Your task to perform on an android device: check storage Image 0: 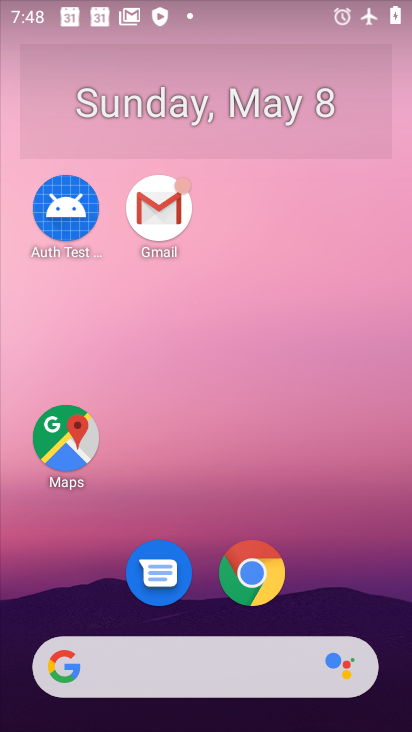
Step 0: drag from (367, 646) to (252, 199)
Your task to perform on an android device: check storage Image 1: 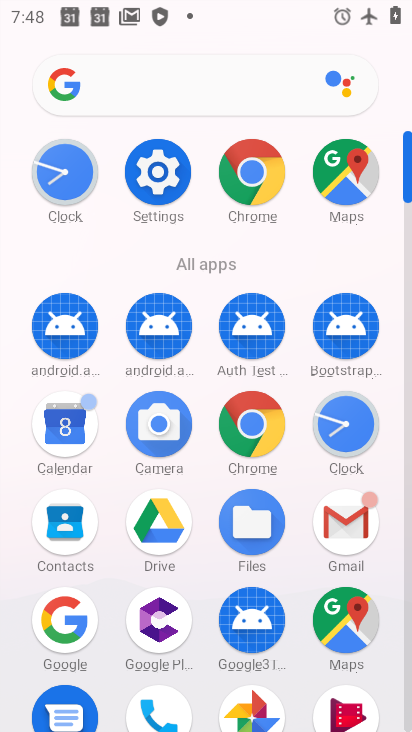
Step 1: click (138, 182)
Your task to perform on an android device: check storage Image 2: 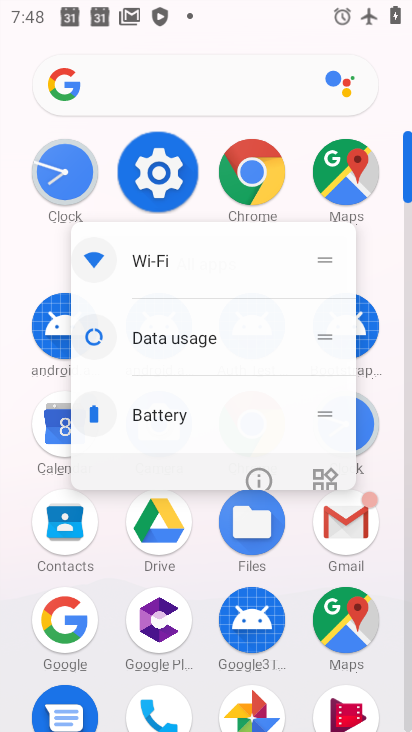
Step 2: click (148, 180)
Your task to perform on an android device: check storage Image 3: 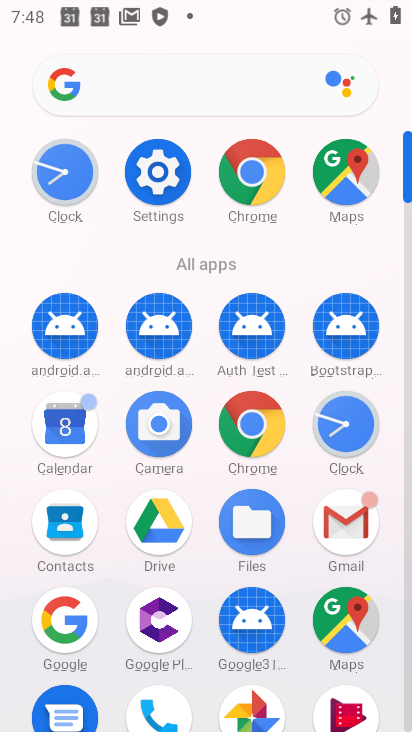
Step 3: click (148, 180)
Your task to perform on an android device: check storage Image 4: 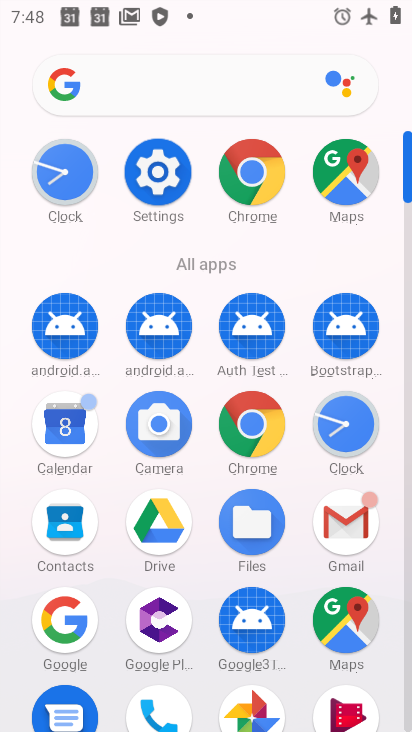
Step 4: click (148, 180)
Your task to perform on an android device: check storage Image 5: 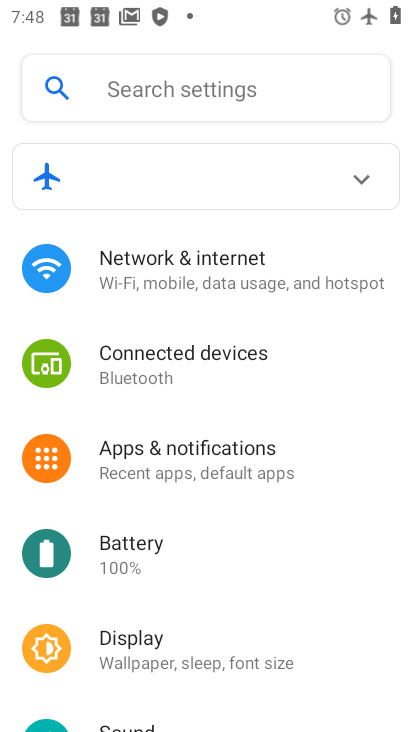
Step 5: drag from (244, 581) to (268, 201)
Your task to perform on an android device: check storage Image 6: 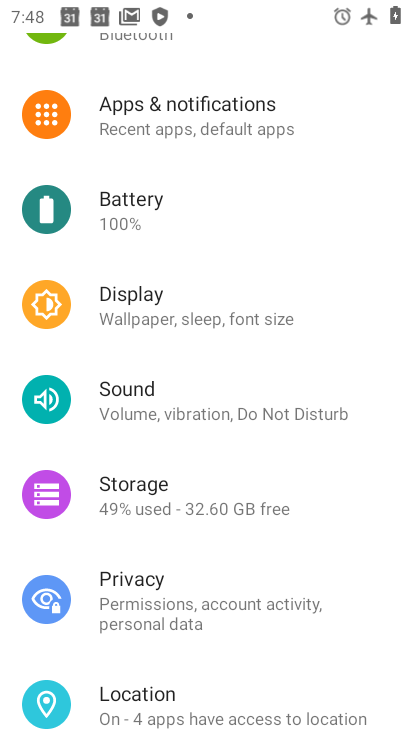
Step 6: drag from (209, 610) to (147, 134)
Your task to perform on an android device: check storage Image 7: 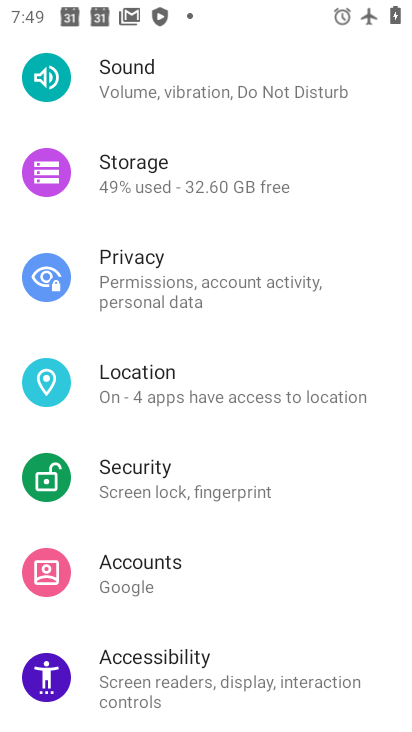
Step 7: click (150, 188)
Your task to perform on an android device: check storage Image 8: 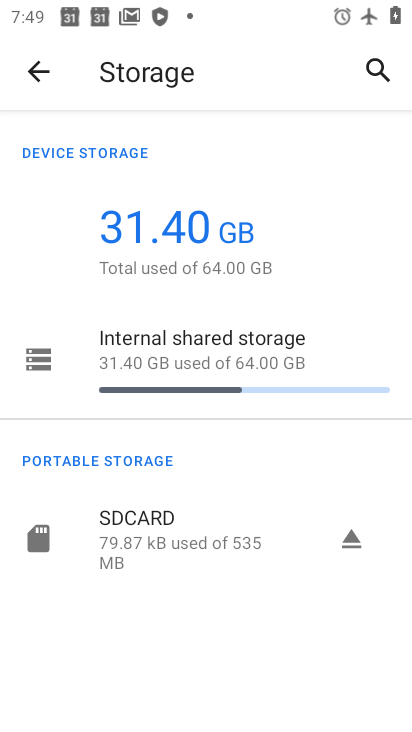
Step 8: task complete